Your task to perform on an android device: Open Youtube and go to "Your channel" Image 0: 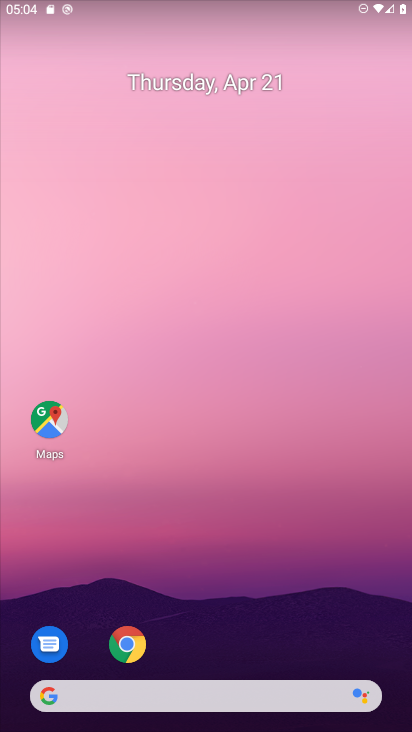
Step 0: drag from (317, 360) to (322, 92)
Your task to perform on an android device: Open Youtube and go to "Your channel" Image 1: 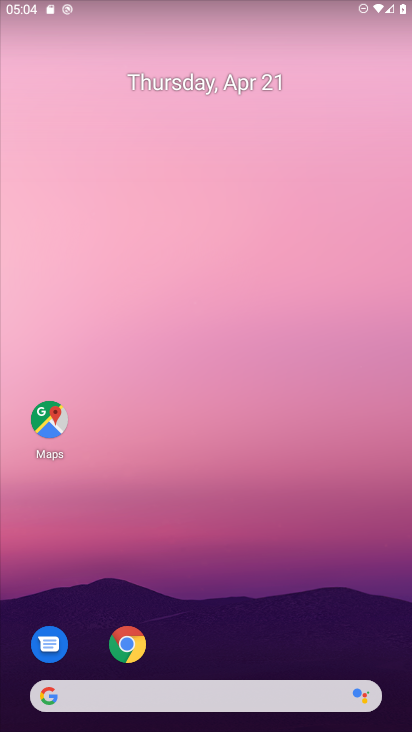
Step 1: drag from (256, 523) to (235, 98)
Your task to perform on an android device: Open Youtube and go to "Your channel" Image 2: 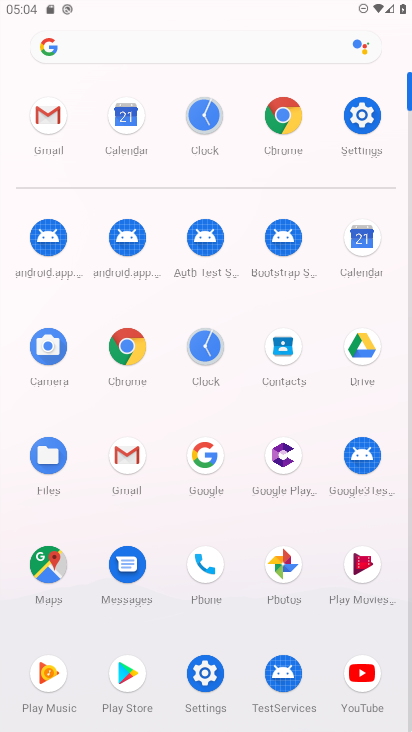
Step 2: drag from (241, 535) to (273, 274)
Your task to perform on an android device: Open Youtube and go to "Your channel" Image 3: 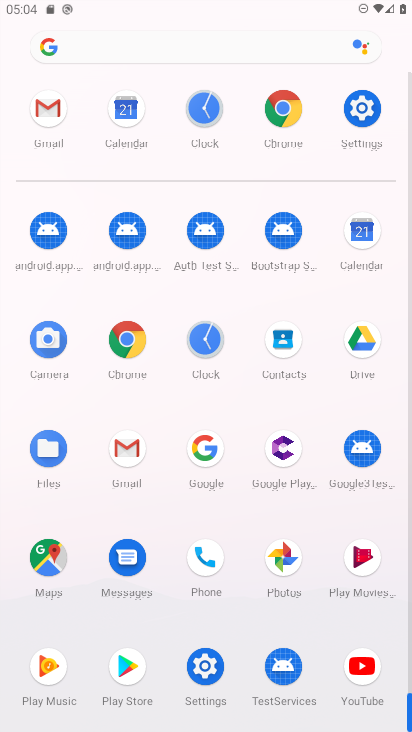
Step 3: click (364, 665)
Your task to perform on an android device: Open Youtube and go to "Your channel" Image 4: 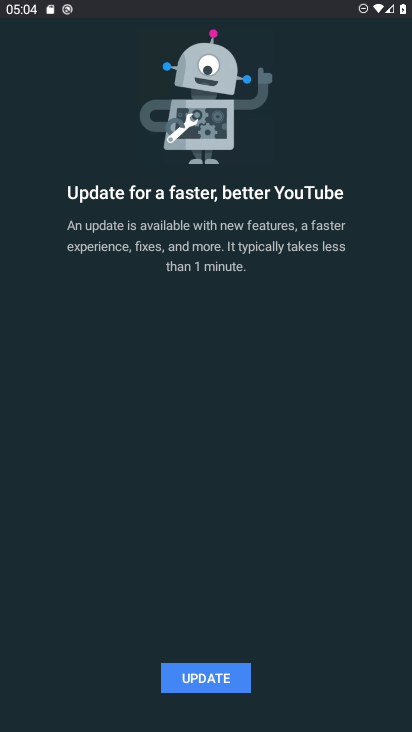
Step 4: task complete